Your task to perform on an android device: What's the weather today? Image 0: 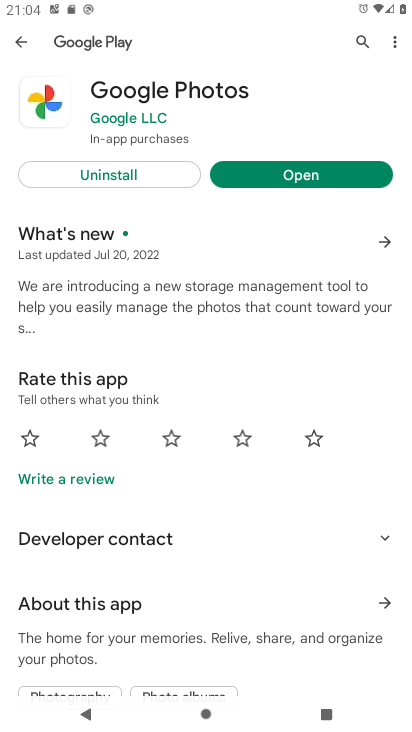
Step 0: press home button
Your task to perform on an android device: What's the weather today? Image 1: 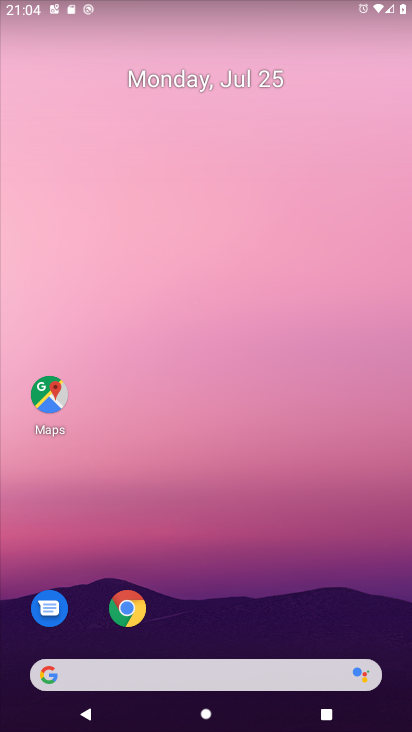
Step 1: click (231, 676)
Your task to perform on an android device: What's the weather today? Image 2: 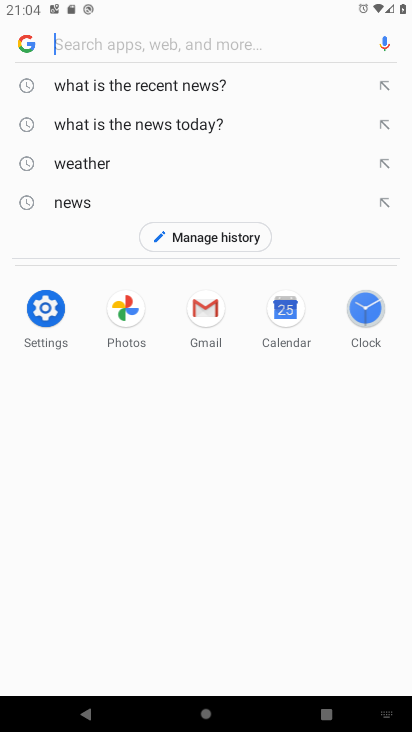
Step 2: type "what's the weather today"
Your task to perform on an android device: What's the weather today? Image 3: 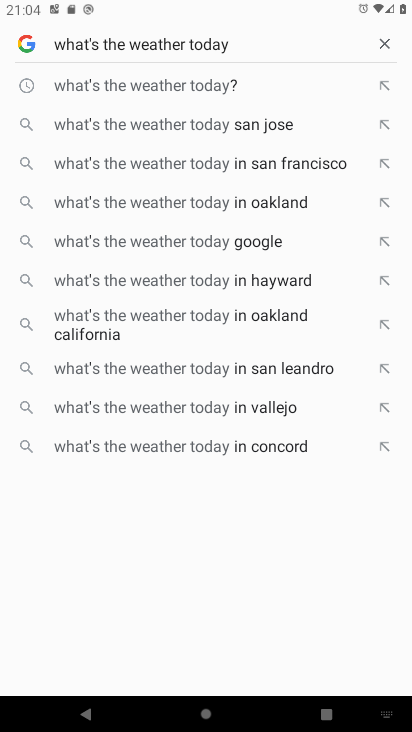
Step 3: click (193, 73)
Your task to perform on an android device: What's the weather today? Image 4: 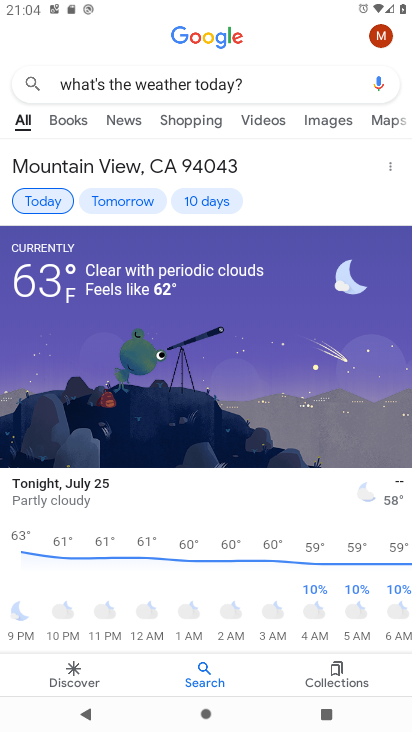
Step 4: task complete